Your task to perform on an android device: Open Chrome and go to the settings page Image 0: 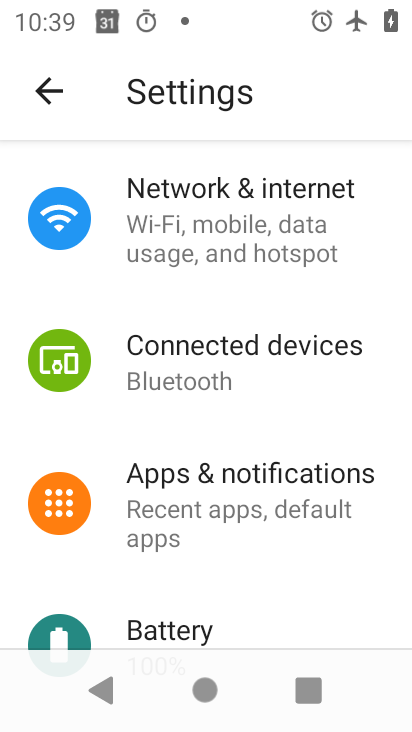
Step 0: press home button
Your task to perform on an android device: Open Chrome and go to the settings page Image 1: 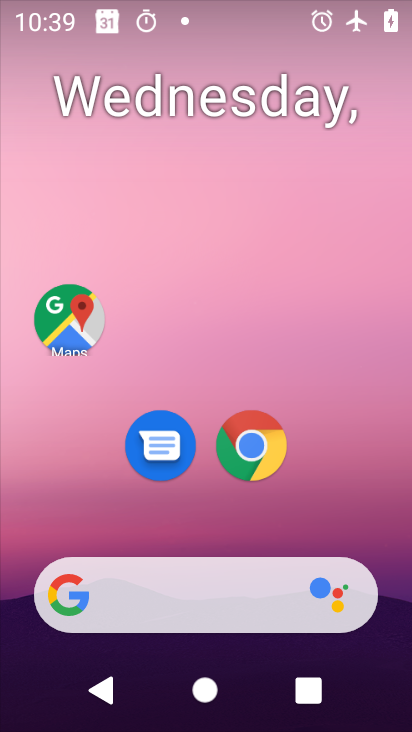
Step 1: drag from (359, 514) to (309, 27)
Your task to perform on an android device: Open Chrome and go to the settings page Image 2: 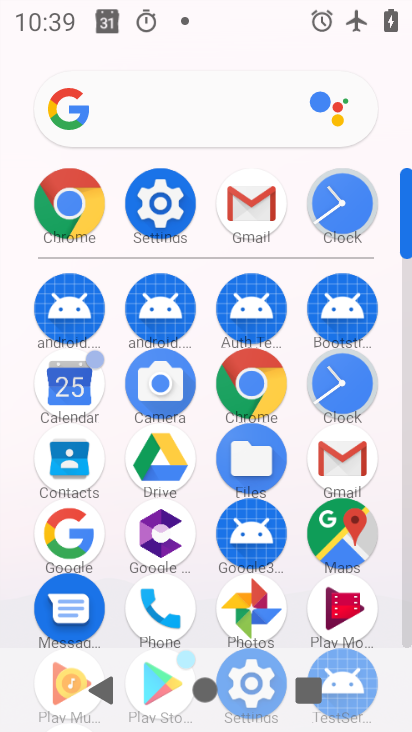
Step 2: click (53, 202)
Your task to perform on an android device: Open Chrome and go to the settings page Image 3: 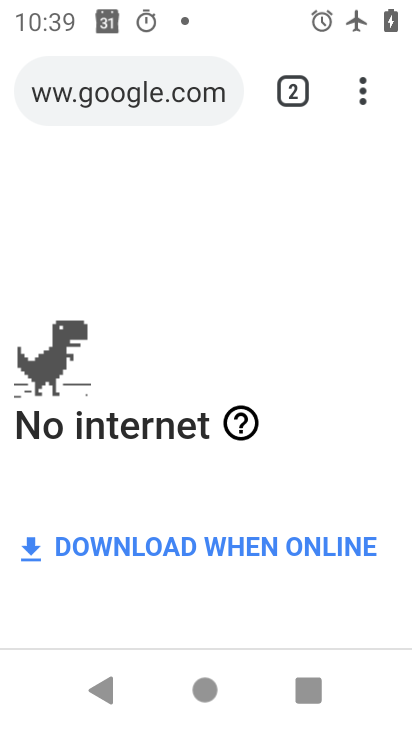
Step 3: task complete